Your task to perform on an android device: refresh tabs in the chrome app Image 0: 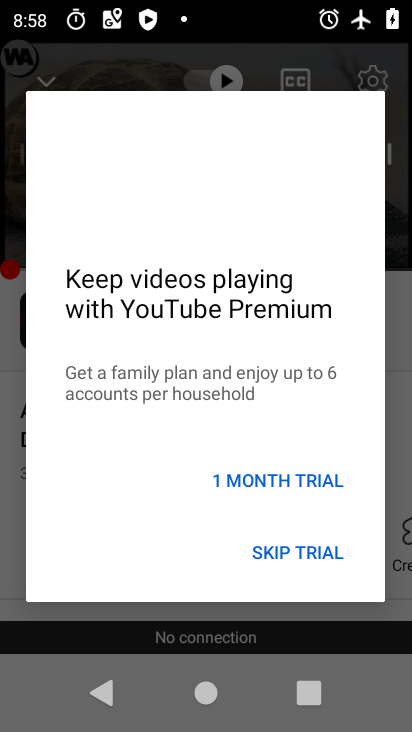
Step 0: press home button
Your task to perform on an android device: refresh tabs in the chrome app Image 1: 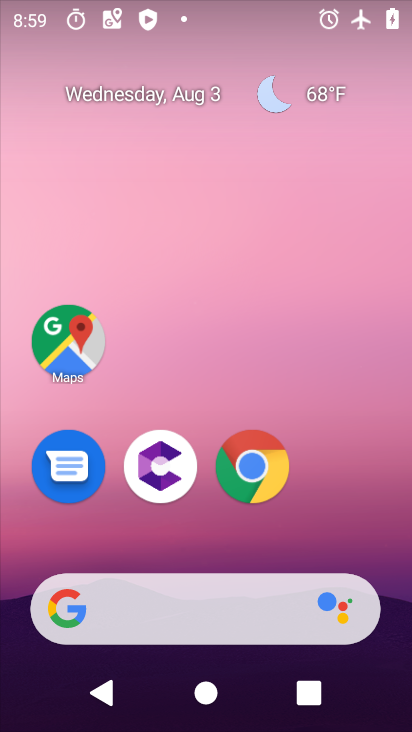
Step 1: drag from (348, 490) to (318, 18)
Your task to perform on an android device: refresh tabs in the chrome app Image 2: 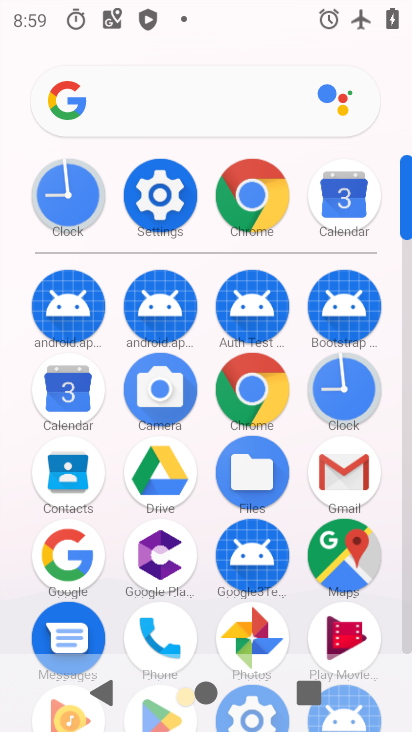
Step 2: click (249, 396)
Your task to perform on an android device: refresh tabs in the chrome app Image 3: 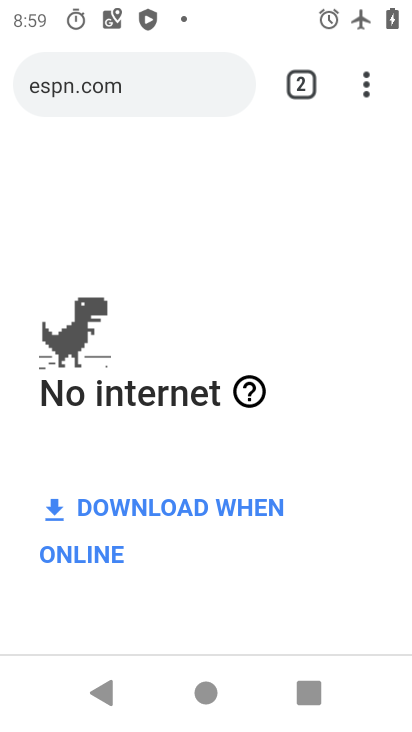
Step 3: click (363, 89)
Your task to perform on an android device: refresh tabs in the chrome app Image 4: 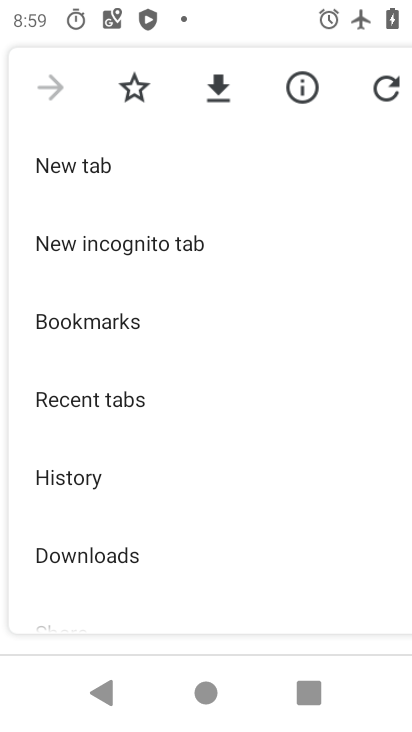
Step 4: click (376, 98)
Your task to perform on an android device: refresh tabs in the chrome app Image 5: 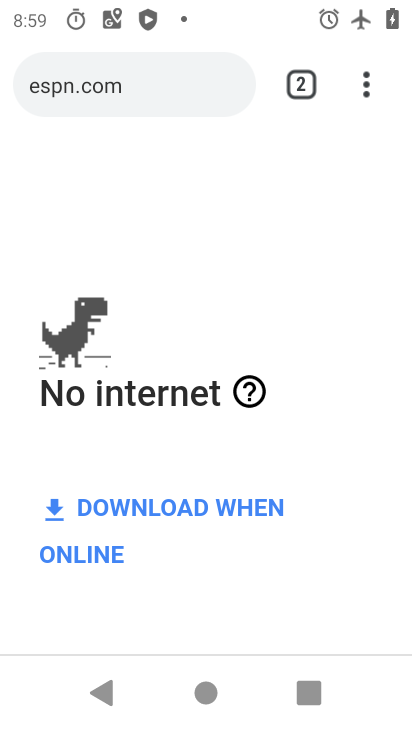
Step 5: task complete